Your task to perform on an android device: delete browsing data in the chrome app Image 0: 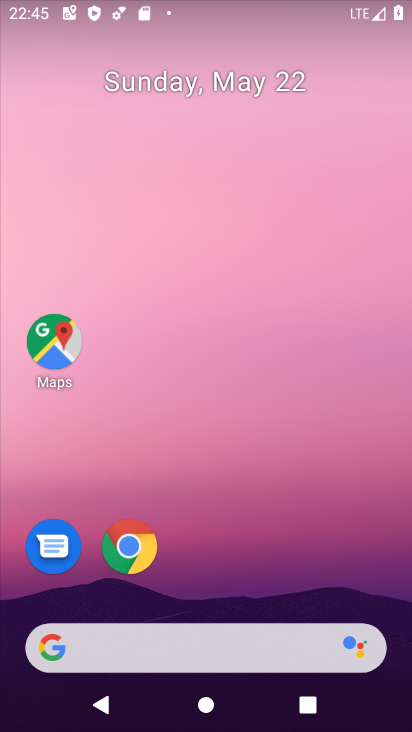
Step 0: drag from (194, 542) to (349, 32)
Your task to perform on an android device: delete browsing data in the chrome app Image 1: 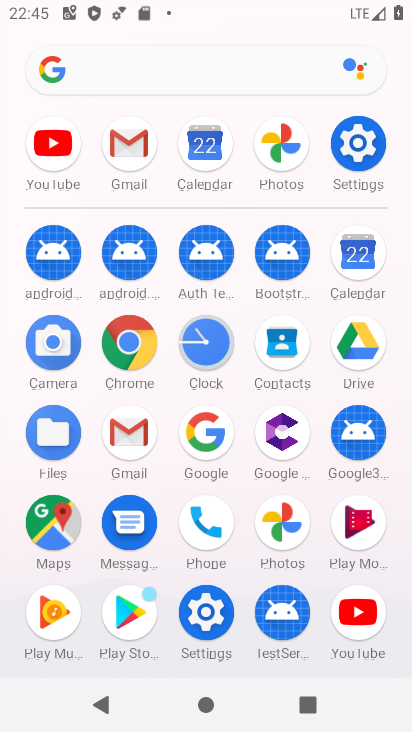
Step 1: click (128, 335)
Your task to perform on an android device: delete browsing data in the chrome app Image 2: 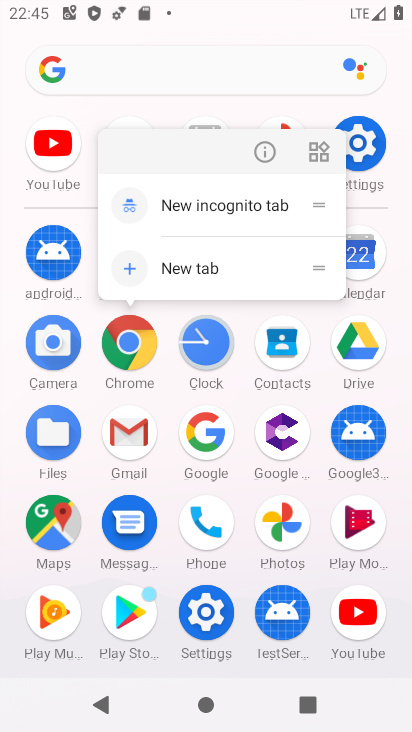
Step 2: click (263, 156)
Your task to perform on an android device: delete browsing data in the chrome app Image 3: 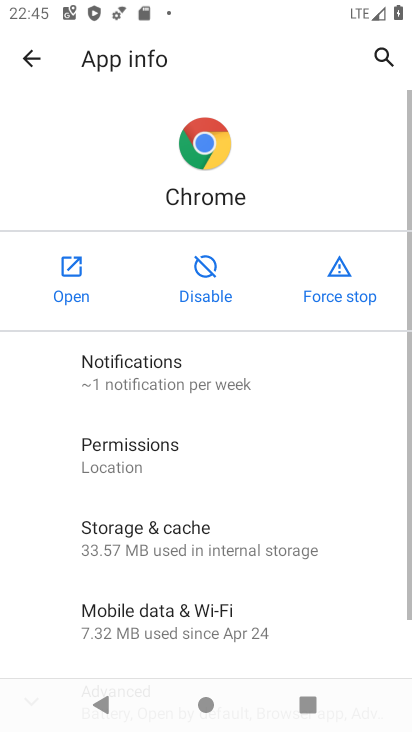
Step 3: click (73, 293)
Your task to perform on an android device: delete browsing data in the chrome app Image 4: 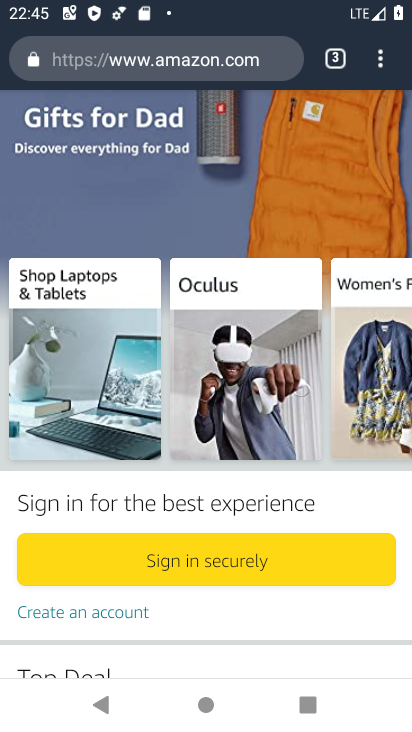
Step 4: drag from (307, 635) to (366, 217)
Your task to perform on an android device: delete browsing data in the chrome app Image 5: 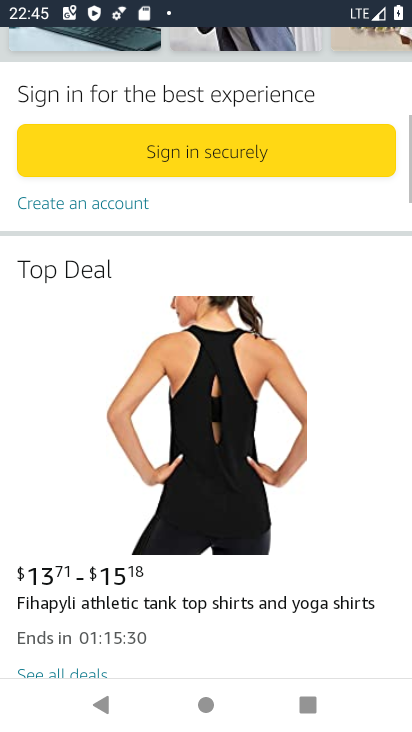
Step 5: drag from (340, 203) to (253, 726)
Your task to perform on an android device: delete browsing data in the chrome app Image 6: 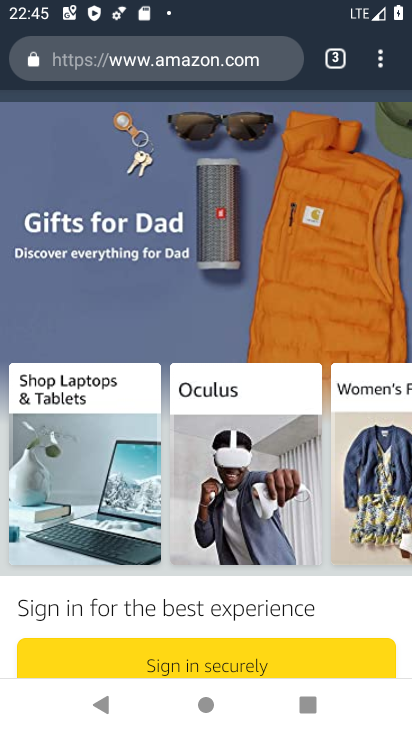
Step 6: click (372, 53)
Your task to perform on an android device: delete browsing data in the chrome app Image 7: 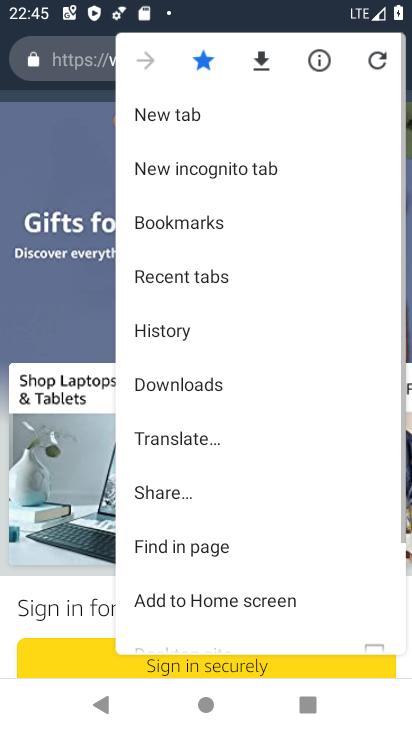
Step 7: drag from (244, 552) to (343, 121)
Your task to perform on an android device: delete browsing data in the chrome app Image 8: 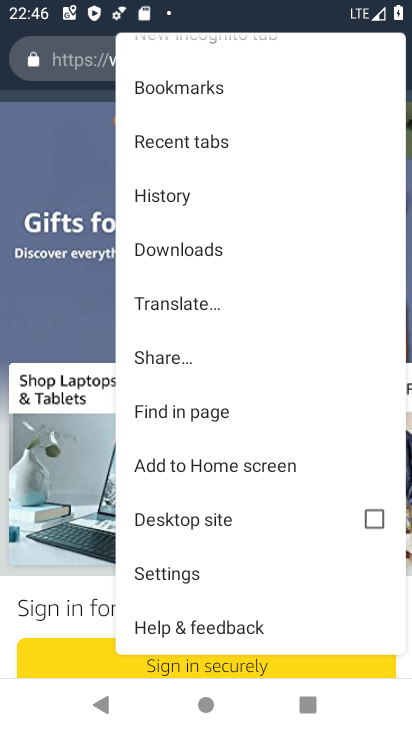
Step 8: click (190, 196)
Your task to perform on an android device: delete browsing data in the chrome app Image 9: 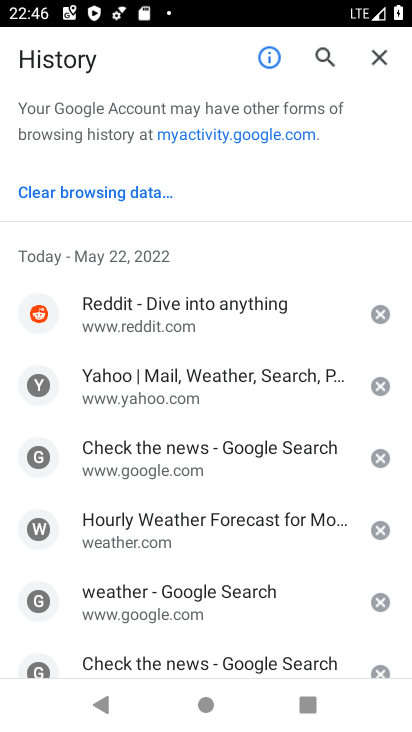
Step 9: click (68, 193)
Your task to perform on an android device: delete browsing data in the chrome app Image 10: 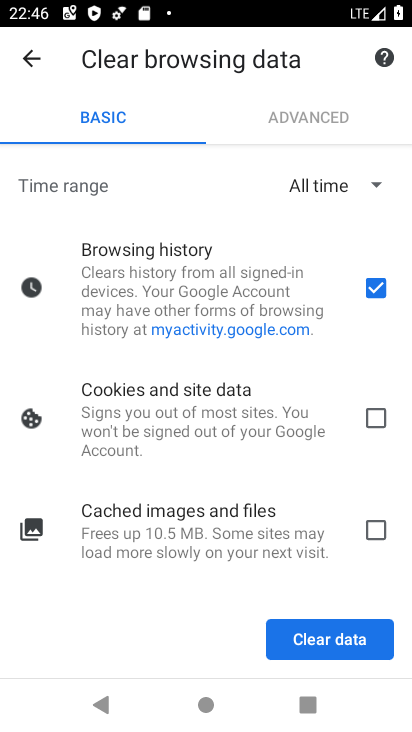
Step 10: click (338, 638)
Your task to perform on an android device: delete browsing data in the chrome app Image 11: 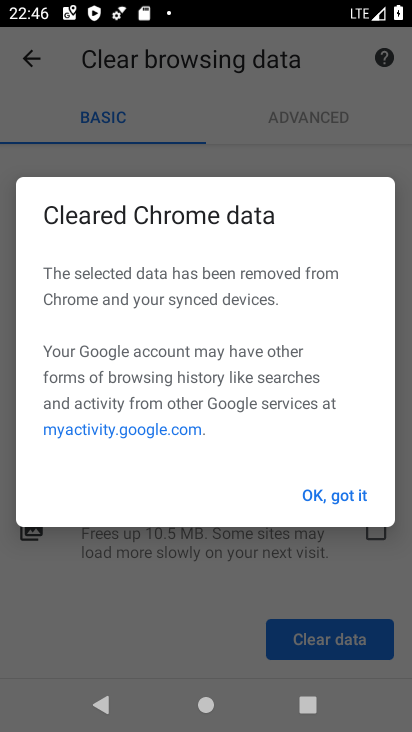
Step 11: click (319, 510)
Your task to perform on an android device: delete browsing data in the chrome app Image 12: 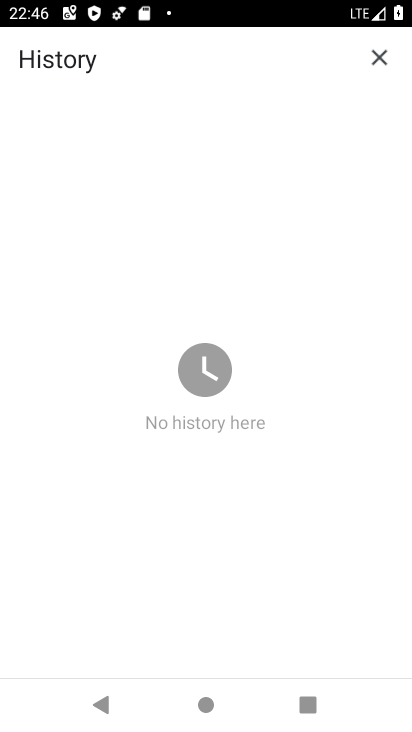
Step 12: task complete